Your task to perform on an android device: Is it going to rain today? Image 0: 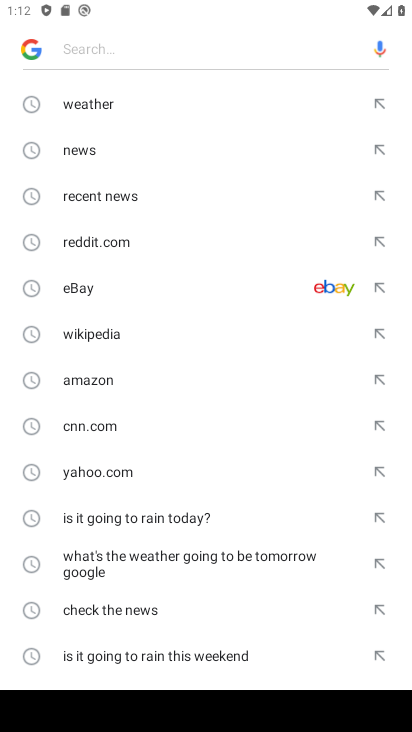
Step 0: press back button
Your task to perform on an android device: Is it going to rain today? Image 1: 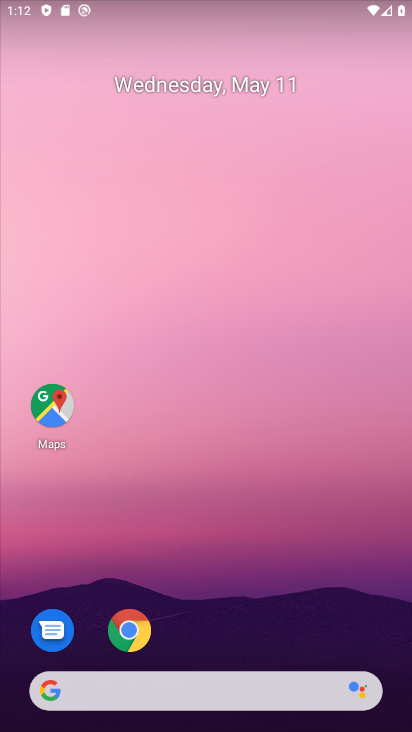
Step 1: drag from (211, 674) to (284, 291)
Your task to perform on an android device: Is it going to rain today? Image 2: 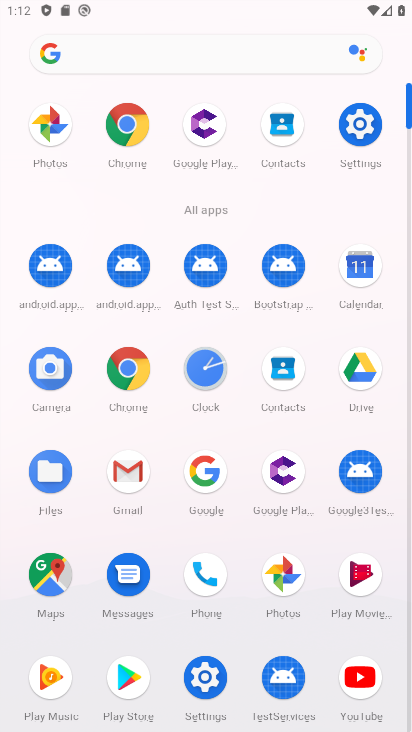
Step 2: click (207, 450)
Your task to perform on an android device: Is it going to rain today? Image 3: 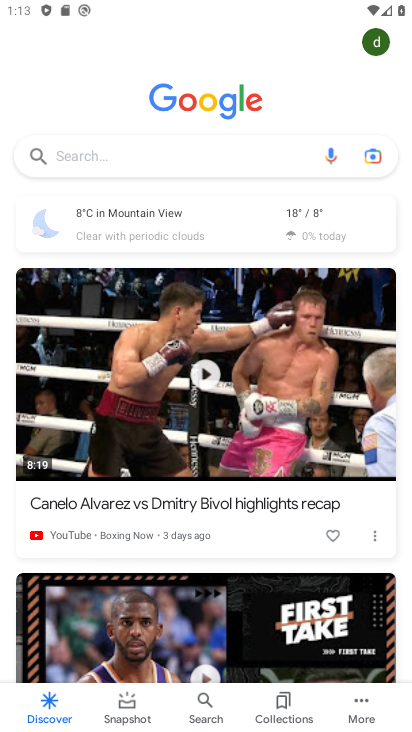
Step 3: click (196, 252)
Your task to perform on an android device: Is it going to rain today? Image 4: 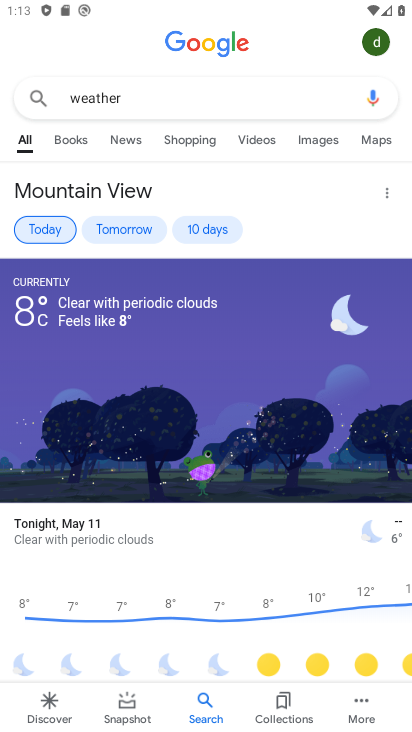
Step 4: task complete